Your task to perform on an android device: install app "ZOOM Cloud Meetings" Image 0: 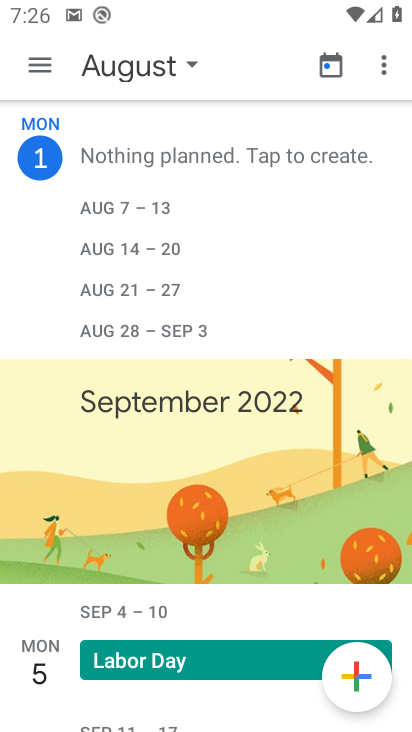
Step 0: press home button
Your task to perform on an android device: install app "ZOOM Cloud Meetings" Image 1: 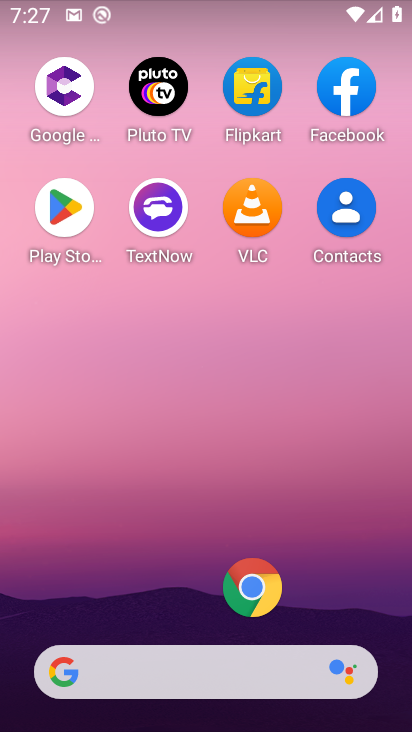
Step 1: click (68, 233)
Your task to perform on an android device: install app "ZOOM Cloud Meetings" Image 2: 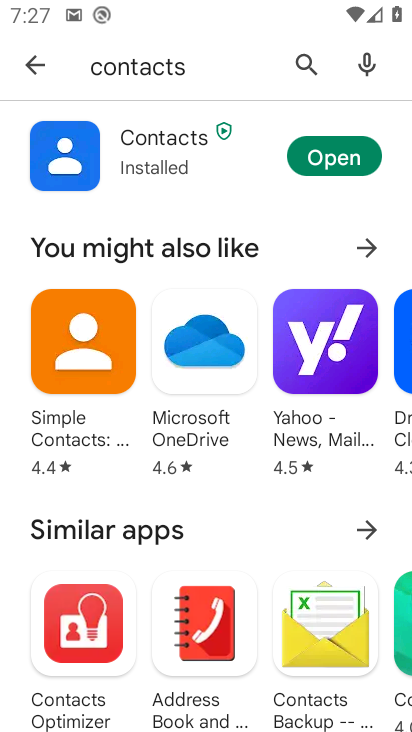
Step 2: click (295, 70)
Your task to perform on an android device: install app "ZOOM Cloud Meetings" Image 3: 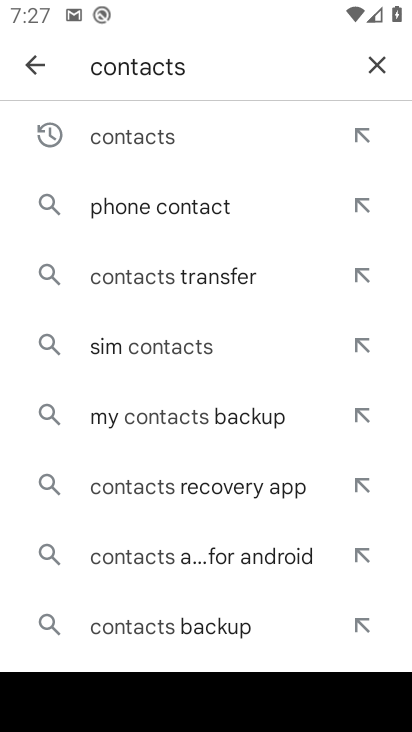
Step 3: click (379, 72)
Your task to perform on an android device: install app "ZOOM Cloud Meetings" Image 4: 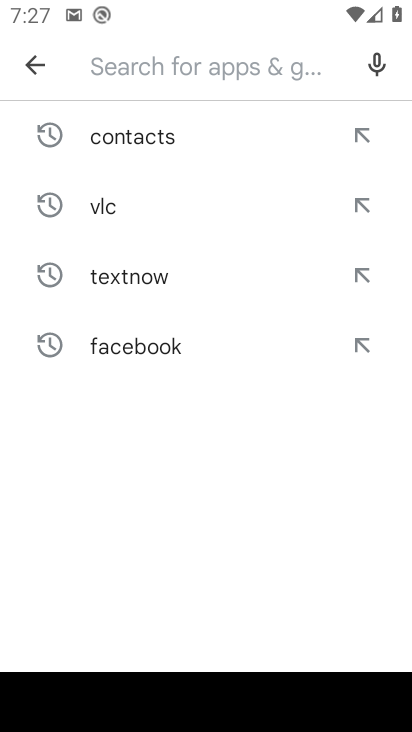
Step 4: type "zoom call"
Your task to perform on an android device: install app "ZOOM Cloud Meetings" Image 5: 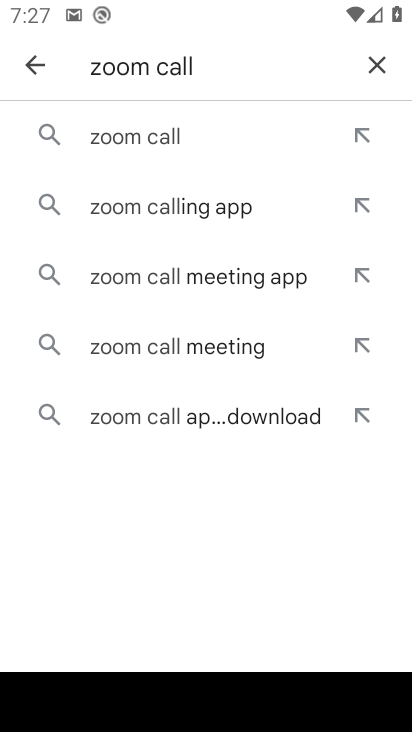
Step 5: click (149, 120)
Your task to perform on an android device: install app "ZOOM Cloud Meetings" Image 6: 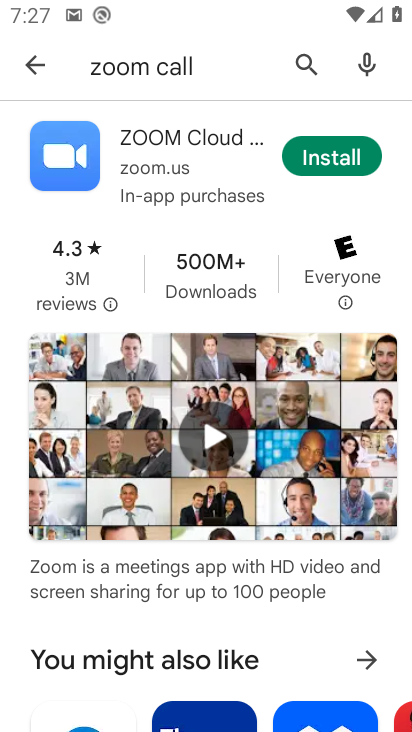
Step 6: click (330, 162)
Your task to perform on an android device: install app "ZOOM Cloud Meetings" Image 7: 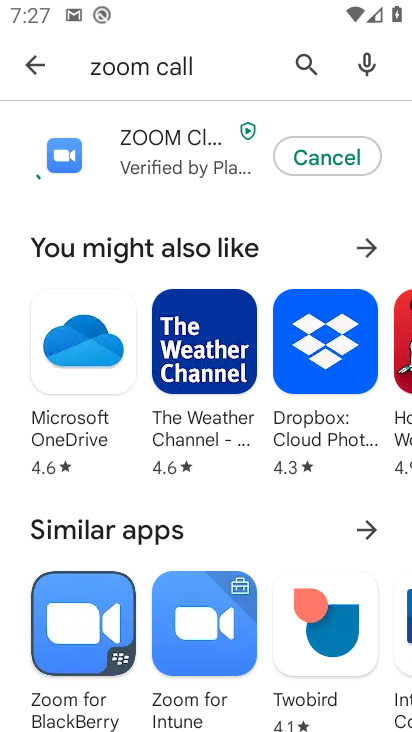
Step 7: task complete